Your task to perform on an android device: change alarm snooze length Image 0: 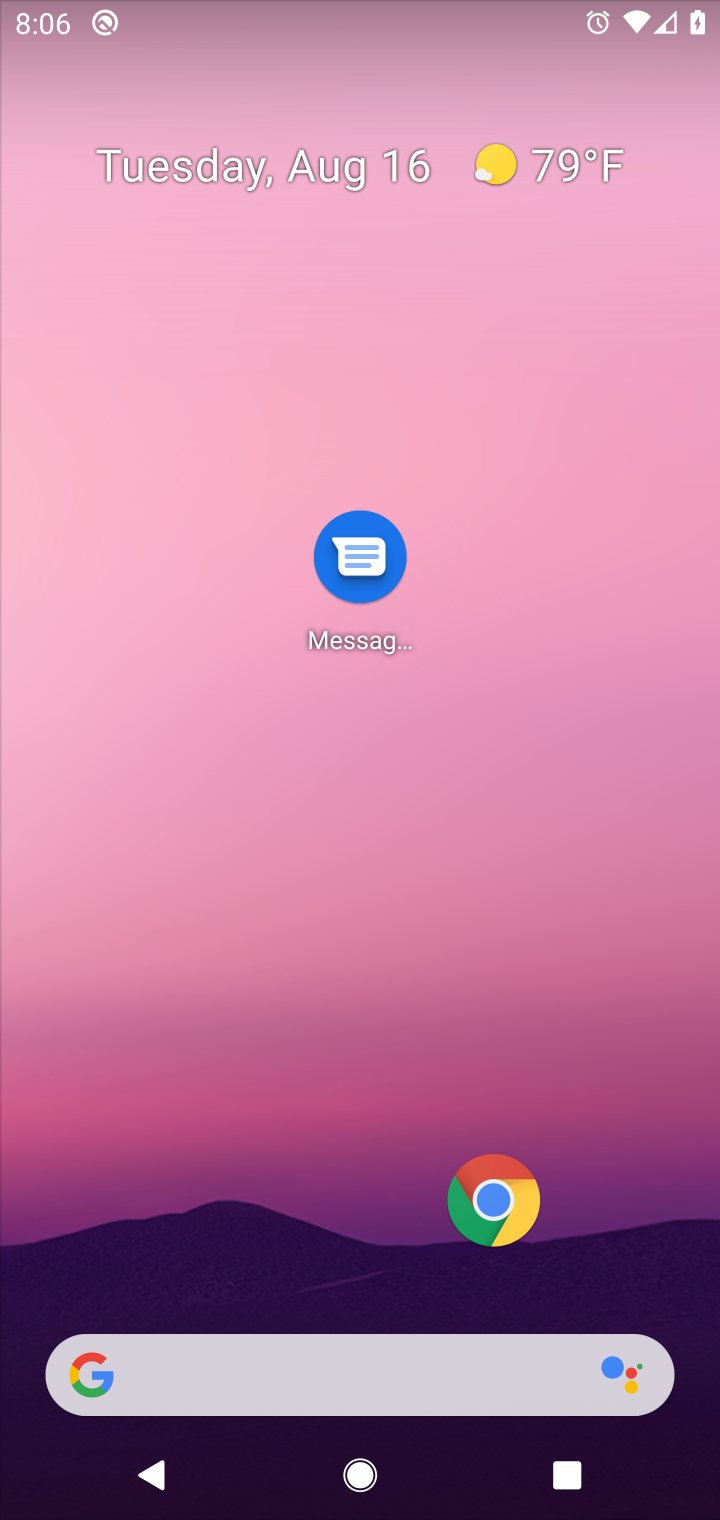
Step 0: drag from (172, 1302) to (386, 466)
Your task to perform on an android device: change alarm snooze length Image 1: 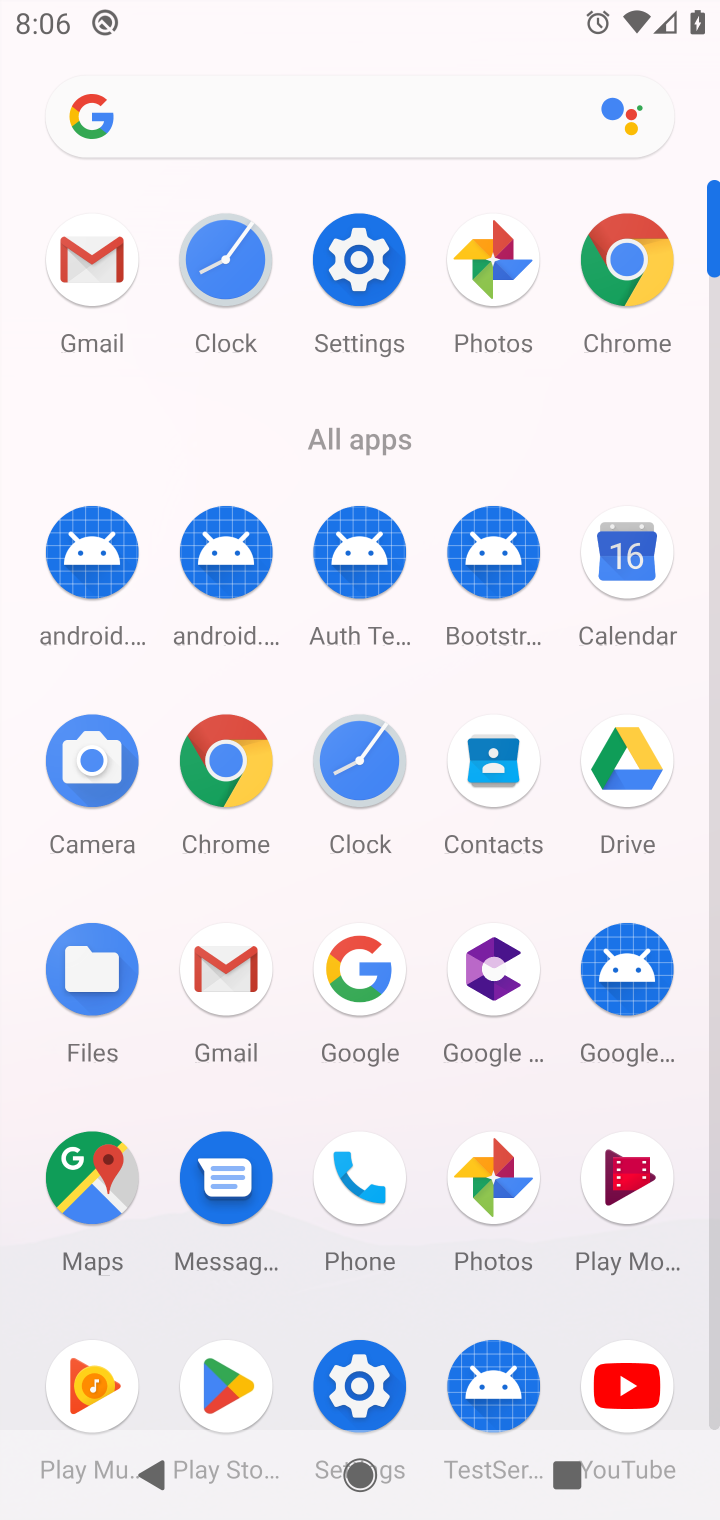
Step 1: click (246, 276)
Your task to perform on an android device: change alarm snooze length Image 2: 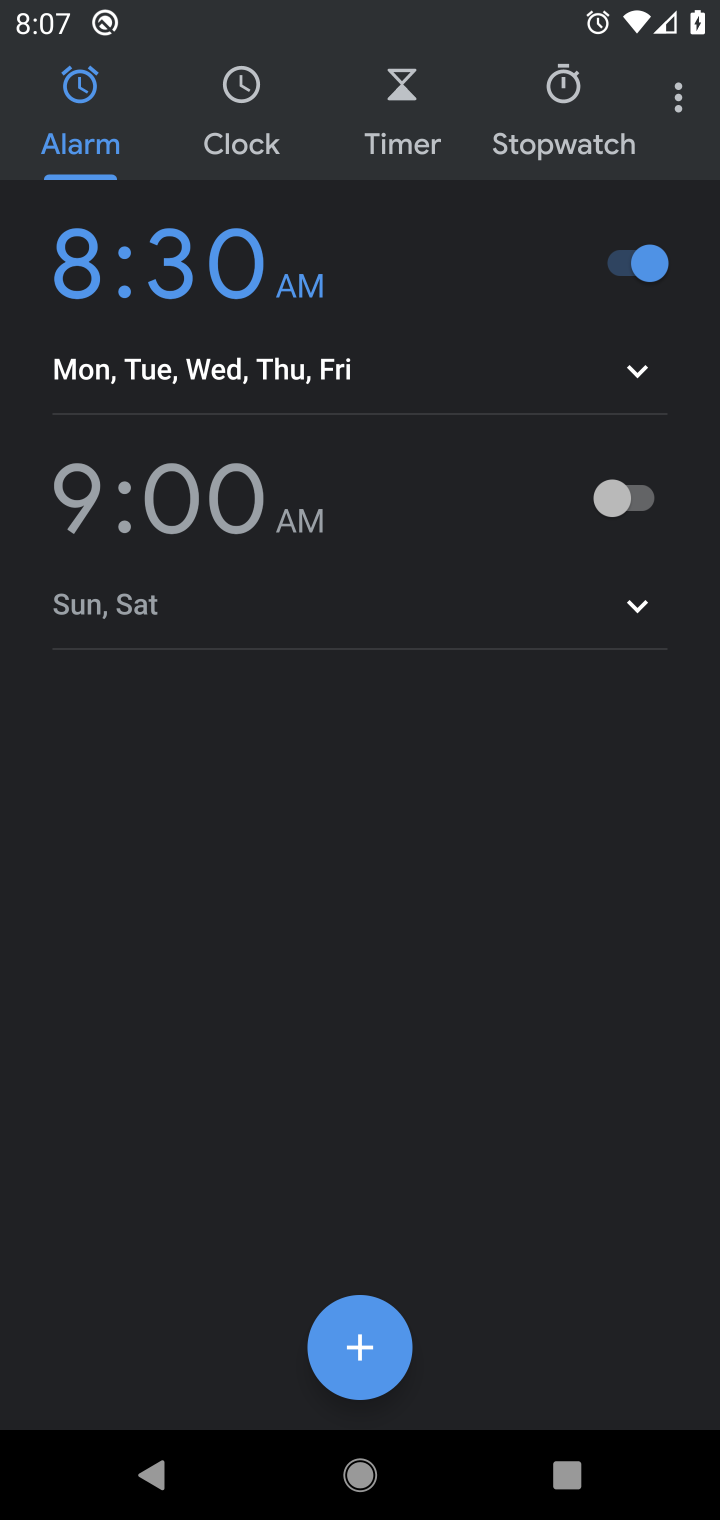
Step 2: click (676, 106)
Your task to perform on an android device: change alarm snooze length Image 3: 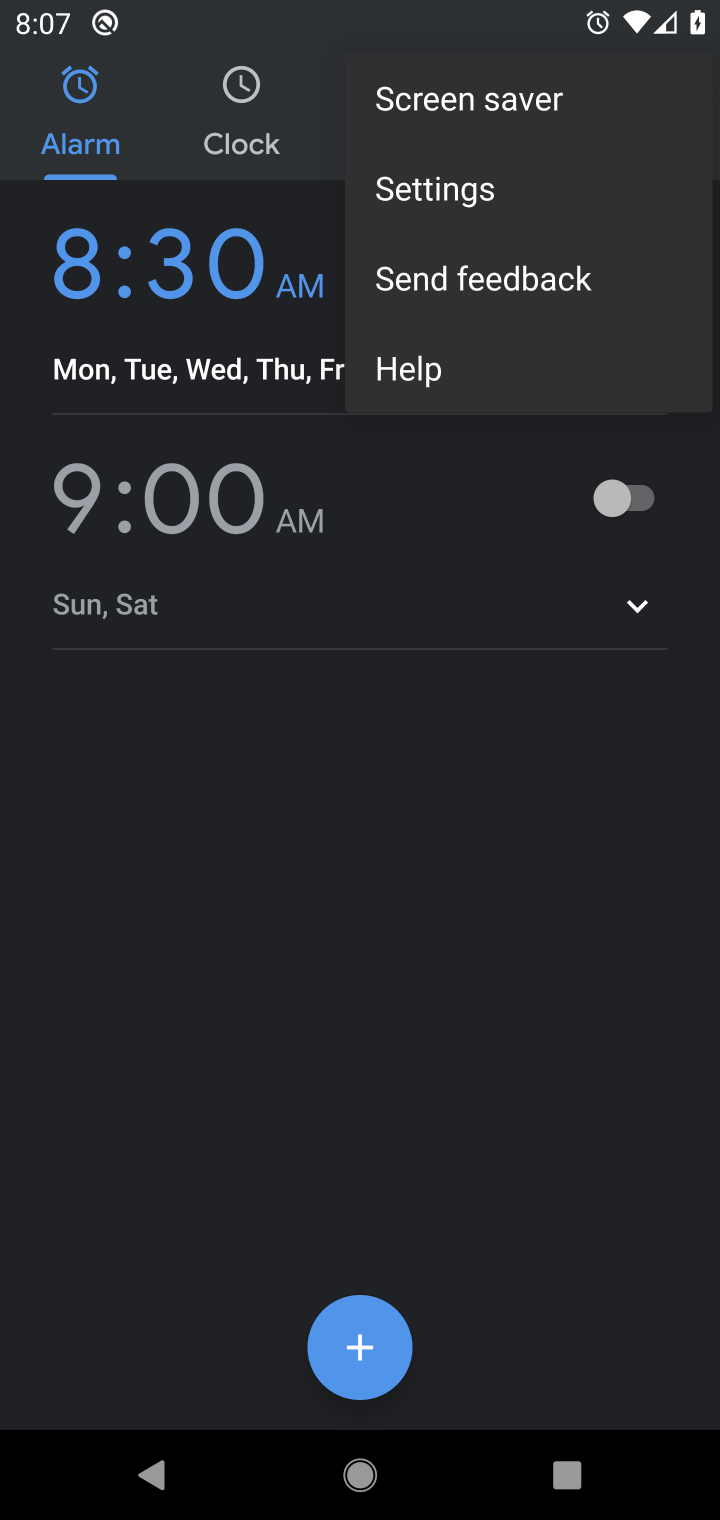
Step 3: click (418, 194)
Your task to perform on an android device: change alarm snooze length Image 4: 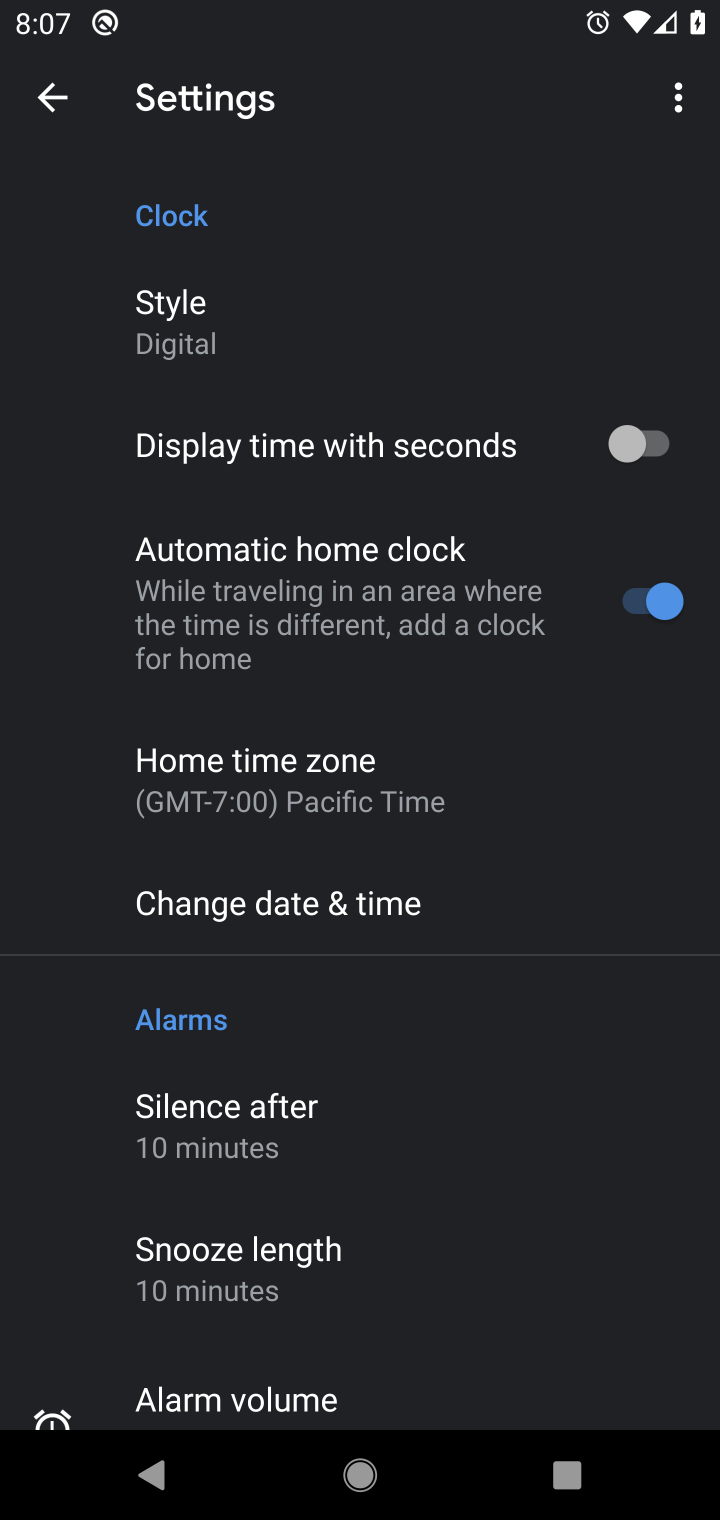
Step 4: drag from (542, 1313) to (582, 725)
Your task to perform on an android device: change alarm snooze length Image 5: 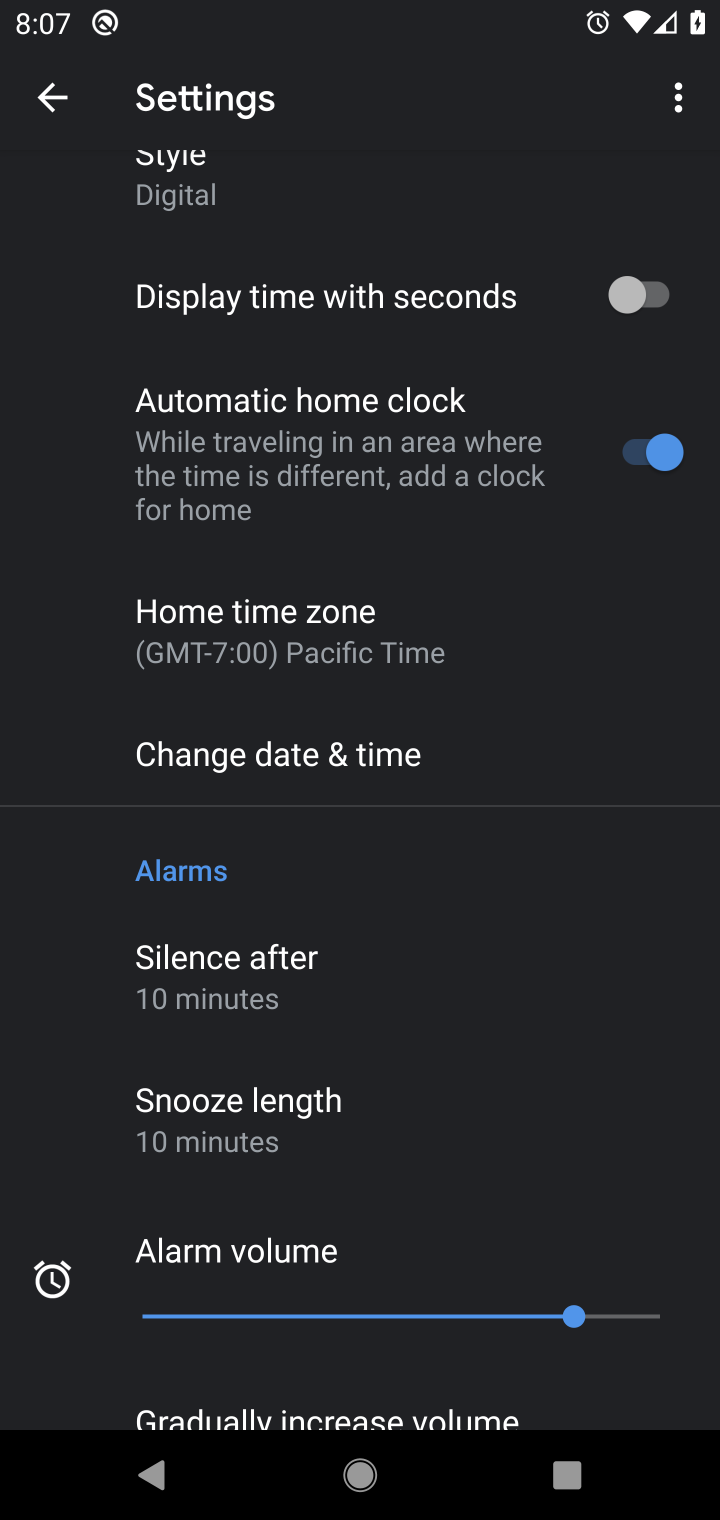
Step 5: click (273, 1109)
Your task to perform on an android device: change alarm snooze length Image 6: 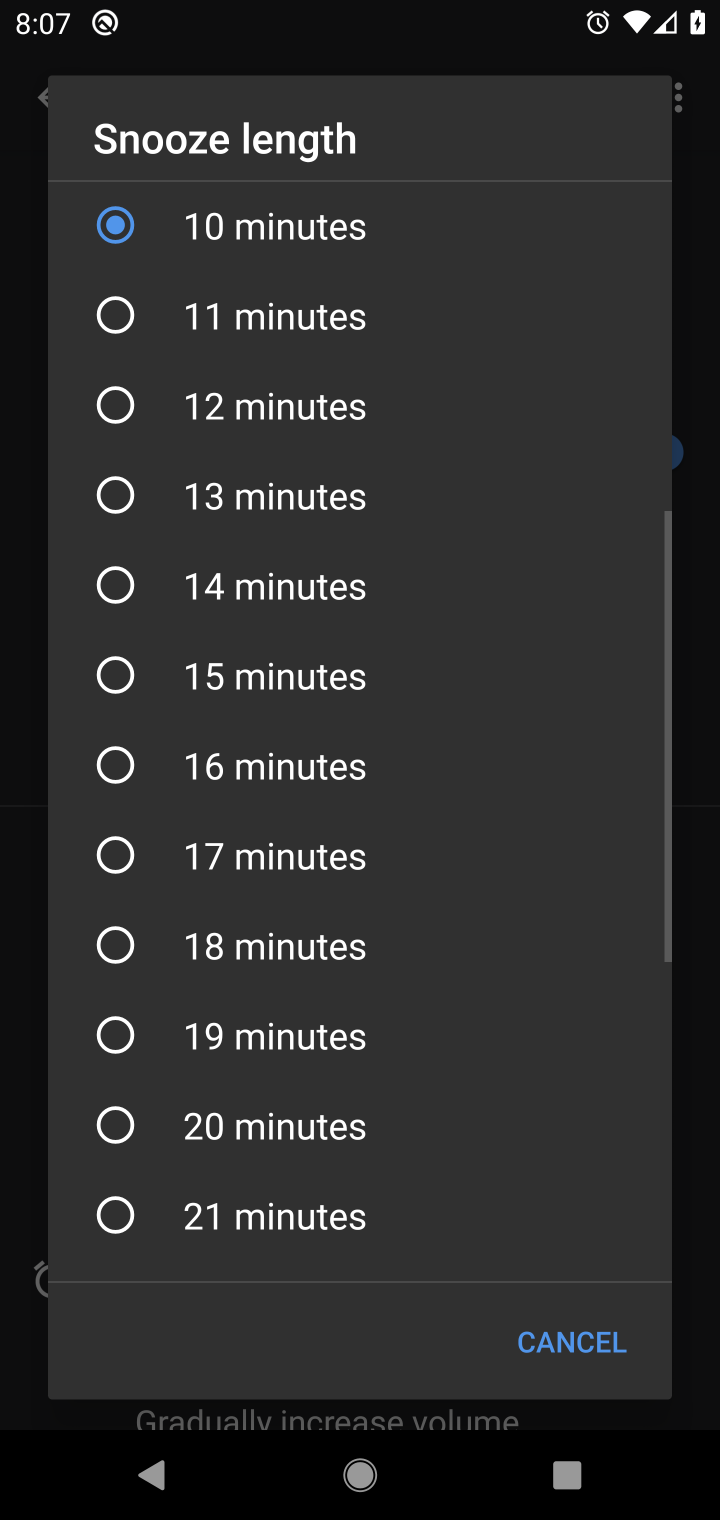
Step 6: click (121, 671)
Your task to perform on an android device: change alarm snooze length Image 7: 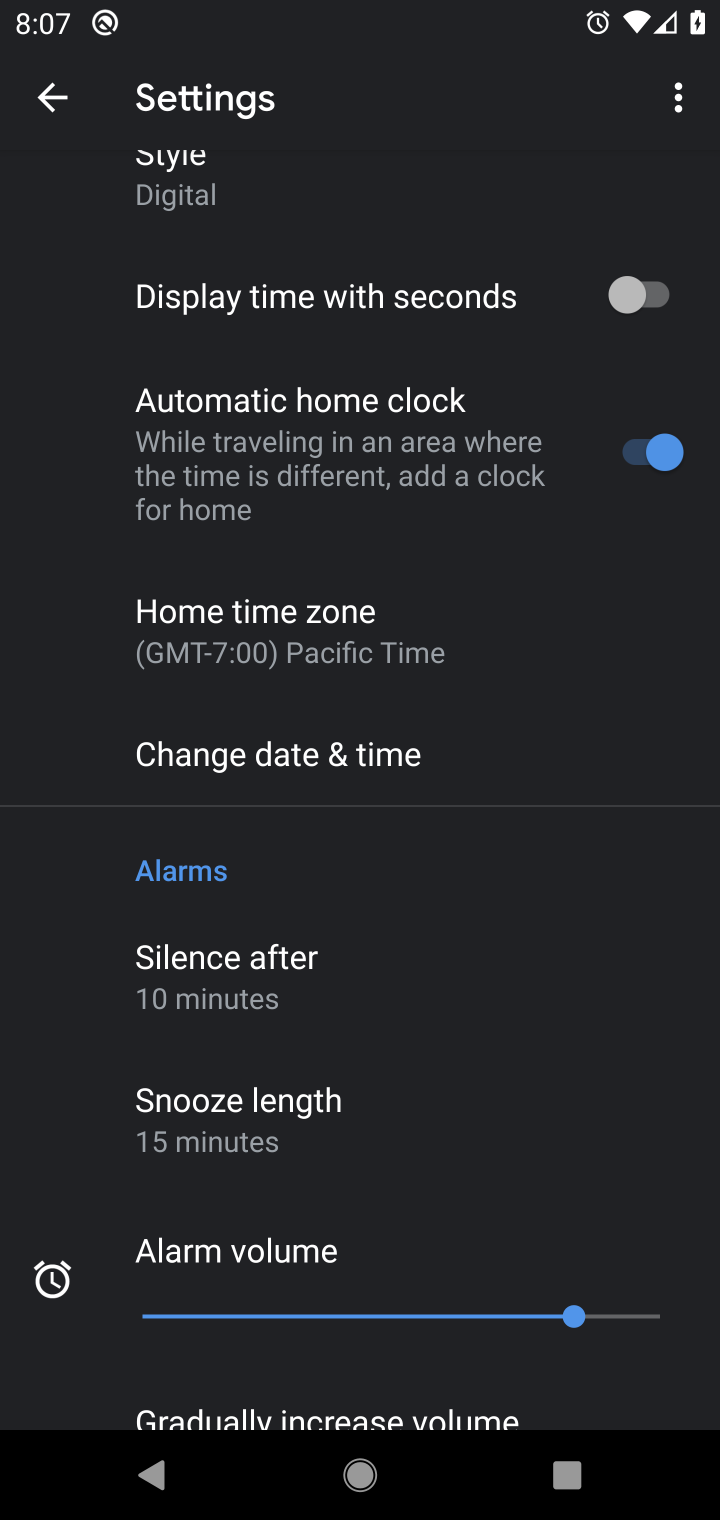
Step 7: task complete